Your task to perform on an android device: Go to Maps Image 0: 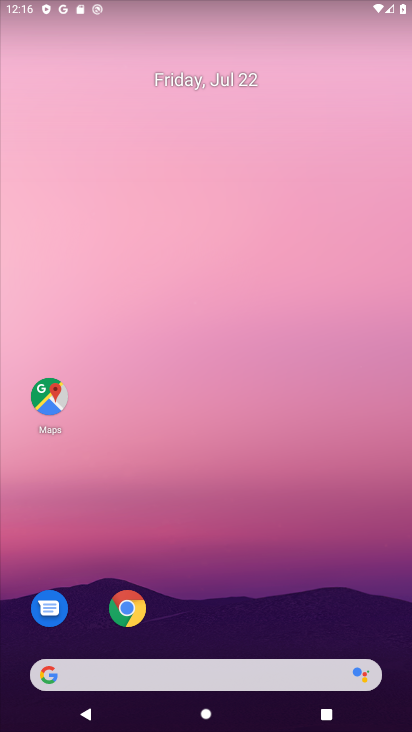
Step 0: press home button
Your task to perform on an android device: Go to Maps Image 1: 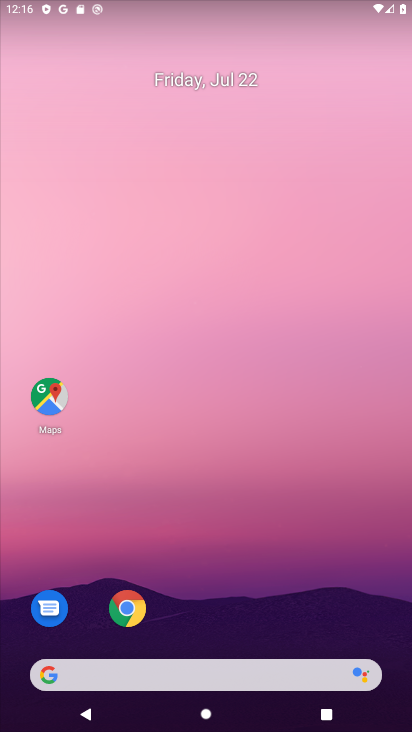
Step 1: click (51, 393)
Your task to perform on an android device: Go to Maps Image 2: 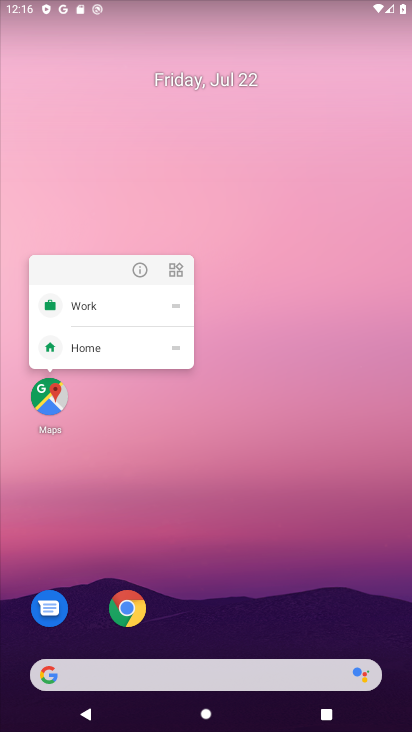
Step 2: click (49, 395)
Your task to perform on an android device: Go to Maps Image 3: 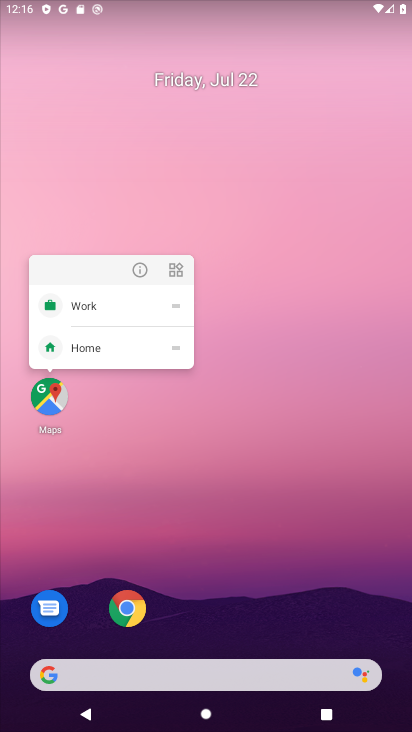
Step 3: click (49, 395)
Your task to perform on an android device: Go to Maps Image 4: 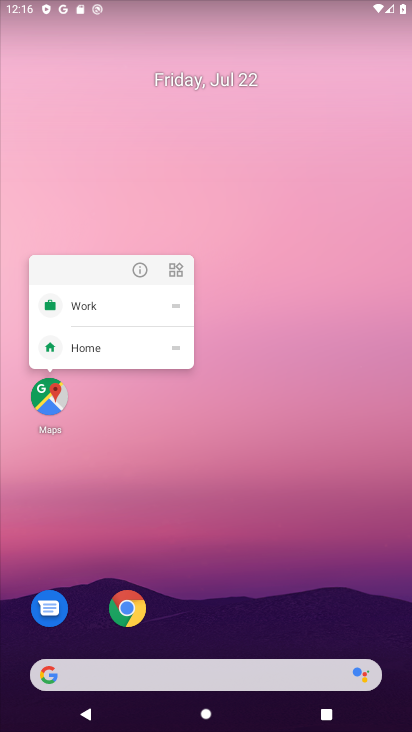
Step 4: drag from (247, 566) to (352, 644)
Your task to perform on an android device: Go to Maps Image 5: 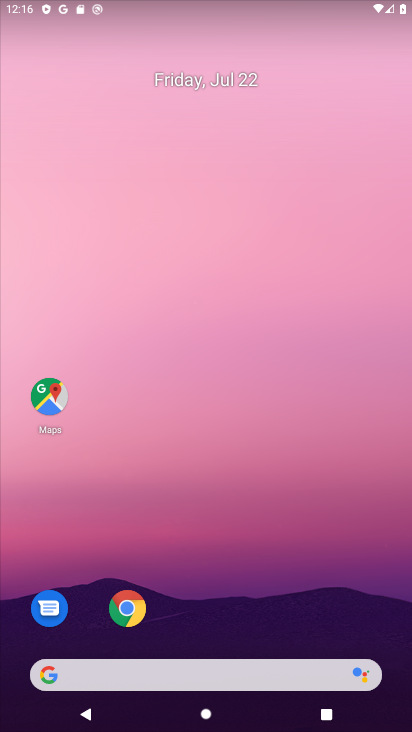
Step 5: click (47, 392)
Your task to perform on an android device: Go to Maps Image 6: 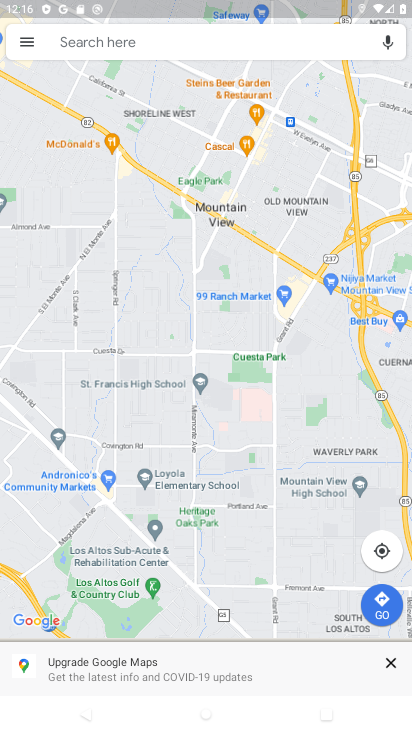
Step 6: task complete